Your task to perform on an android device: Open eBay Image 0: 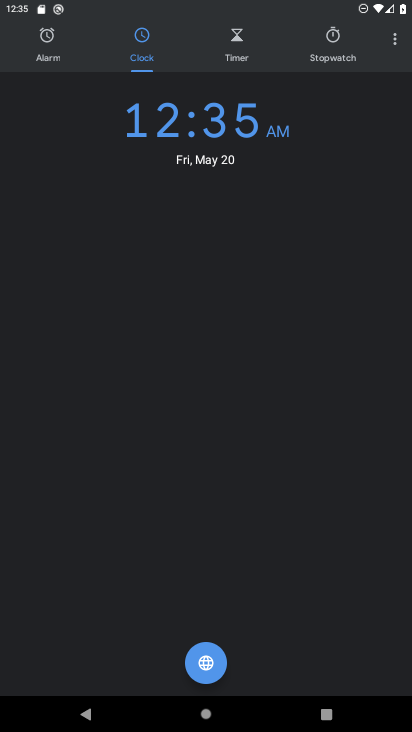
Step 0: press home button
Your task to perform on an android device: Open eBay Image 1: 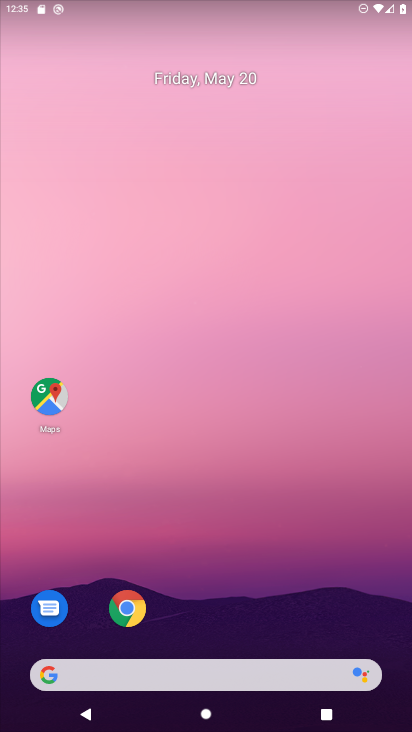
Step 1: drag from (235, 605) to (293, 94)
Your task to perform on an android device: Open eBay Image 2: 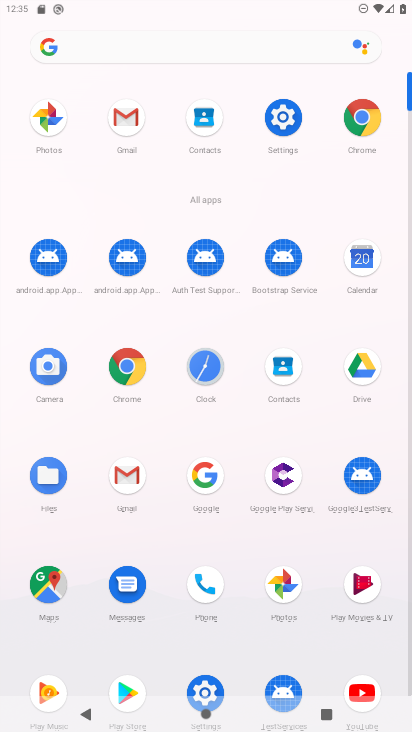
Step 2: click (126, 382)
Your task to perform on an android device: Open eBay Image 3: 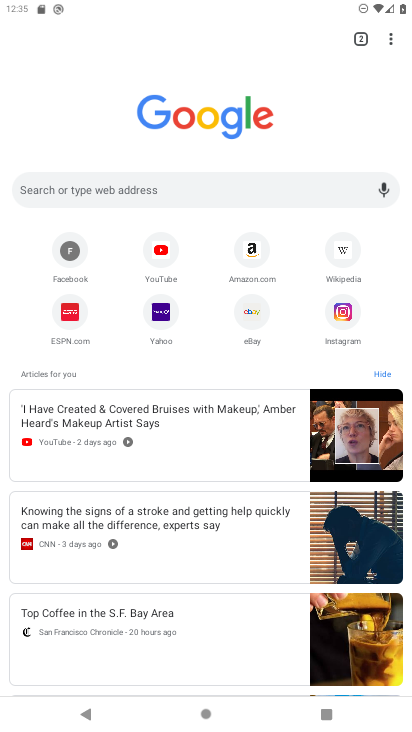
Step 3: click (236, 318)
Your task to perform on an android device: Open eBay Image 4: 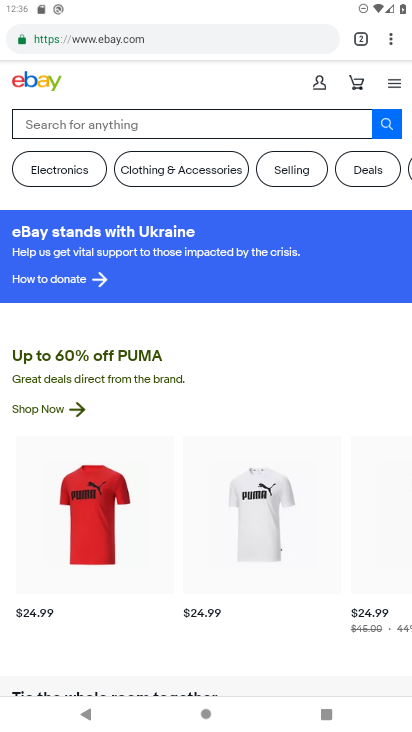
Step 4: task complete